Your task to perform on an android device: What's on my calendar today? Image 0: 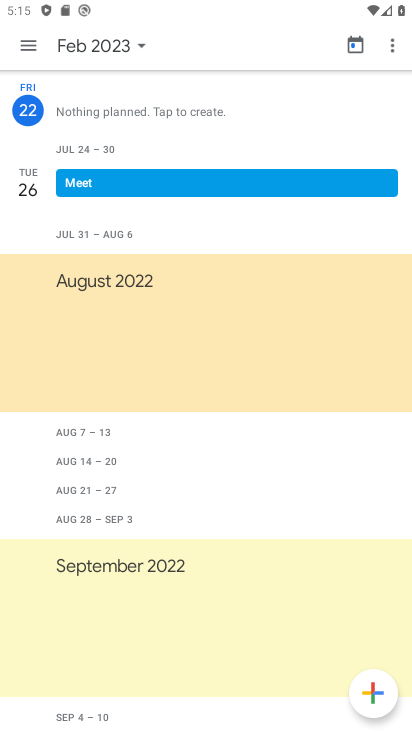
Step 0: task complete